Your task to perform on an android device: Open the stopwatch Image 0: 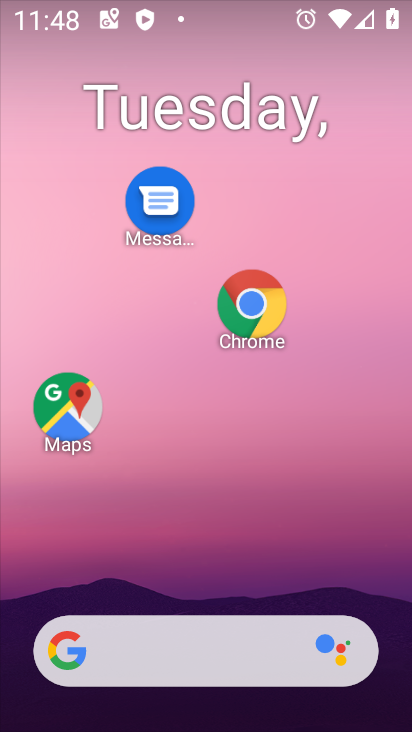
Step 0: drag from (288, 539) to (270, 188)
Your task to perform on an android device: Open the stopwatch Image 1: 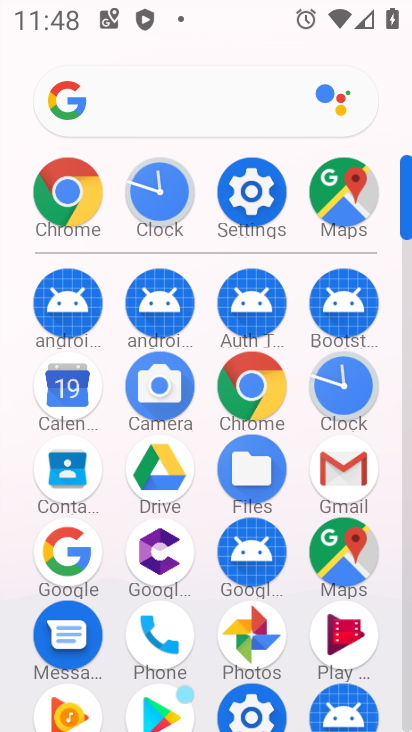
Step 1: click (340, 370)
Your task to perform on an android device: Open the stopwatch Image 2: 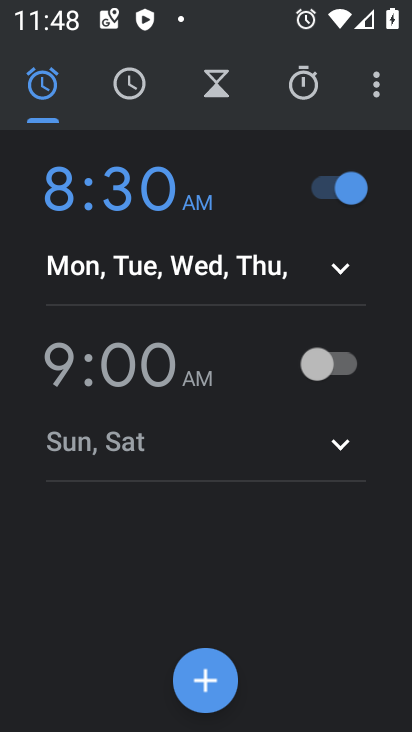
Step 2: click (304, 76)
Your task to perform on an android device: Open the stopwatch Image 3: 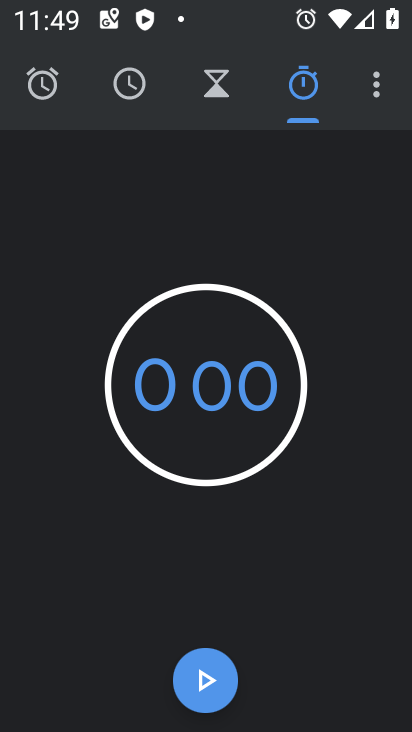
Step 3: click (199, 694)
Your task to perform on an android device: Open the stopwatch Image 4: 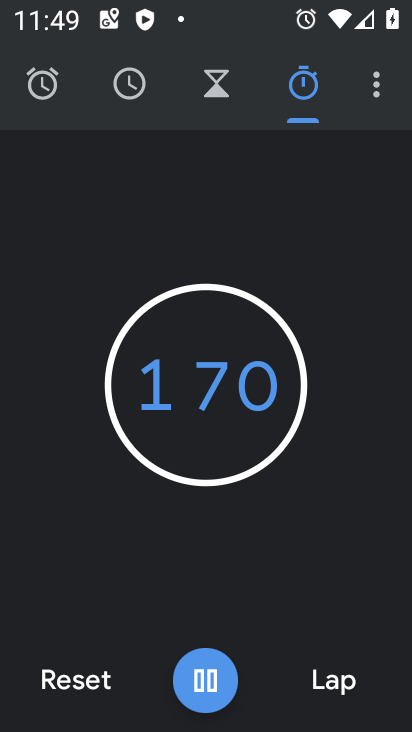
Step 4: click (199, 694)
Your task to perform on an android device: Open the stopwatch Image 5: 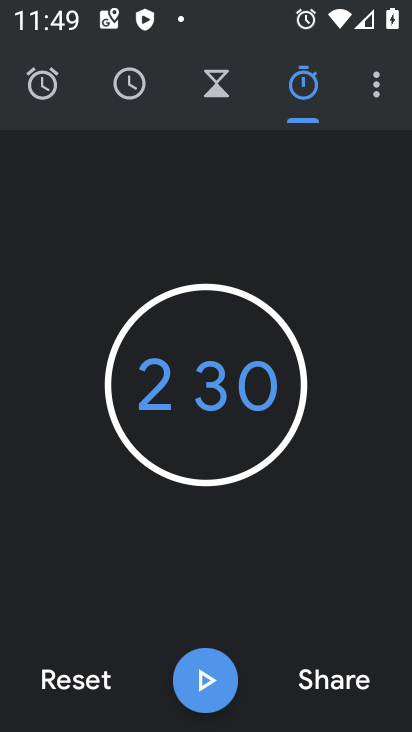
Step 5: task complete